Your task to perform on an android device: toggle data saver in the chrome app Image 0: 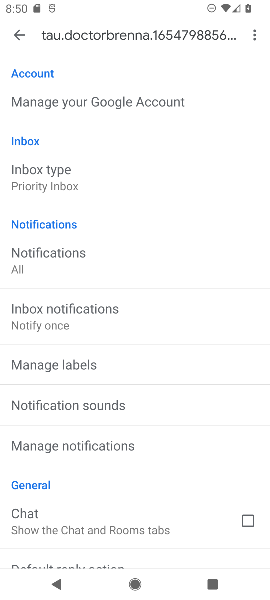
Step 0: press home button
Your task to perform on an android device: toggle data saver in the chrome app Image 1: 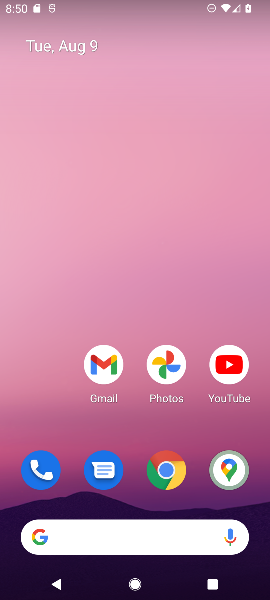
Step 1: click (164, 470)
Your task to perform on an android device: toggle data saver in the chrome app Image 2: 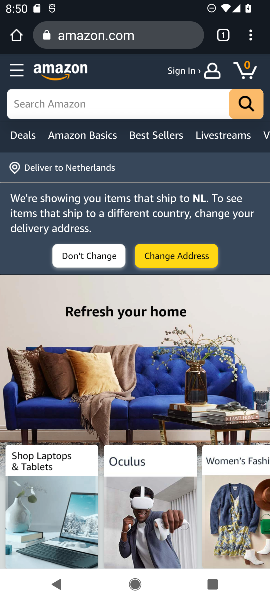
Step 2: click (252, 36)
Your task to perform on an android device: toggle data saver in the chrome app Image 3: 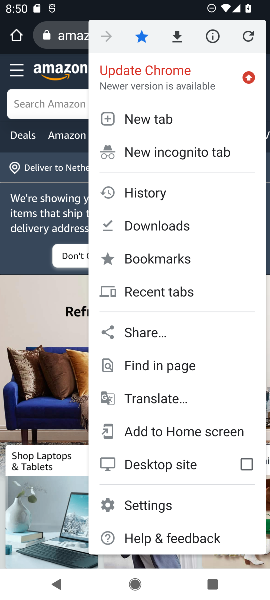
Step 3: click (151, 507)
Your task to perform on an android device: toggle data saver in the chrome app Image 4: 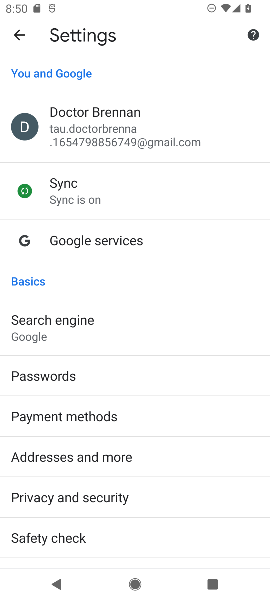
Step 4: drag from (84, 442) to (133, 348)
Your task to perform on an android device: toggle data saver in the chrome app Image 5: 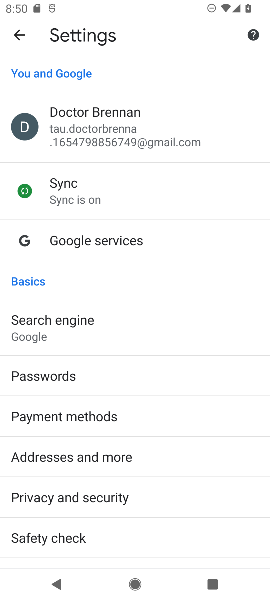
Step 5: drag from (105, 493) to (182, 99)
Your task to perform on an android device: toggle data saver in the chrome app Image 6: 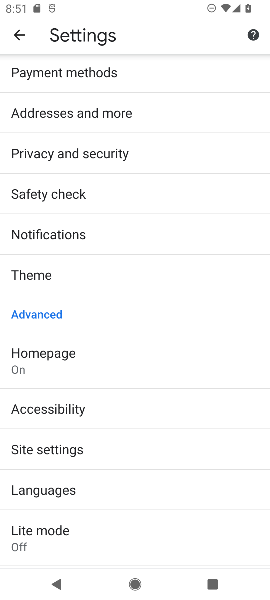
Step 6: click (58, 528)
Your task to perform on an android device: toggle data saver in the chrome app Image 7: 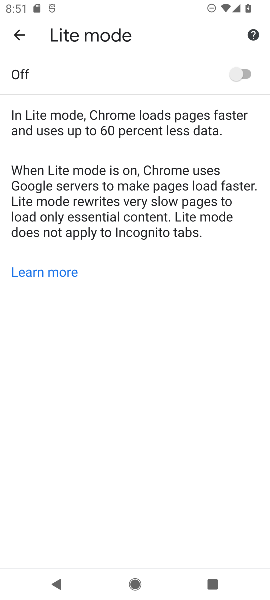
Step 7: click (237, 75)
Your task to perform on an android device: toggle data saver in the chrome app Image 8: 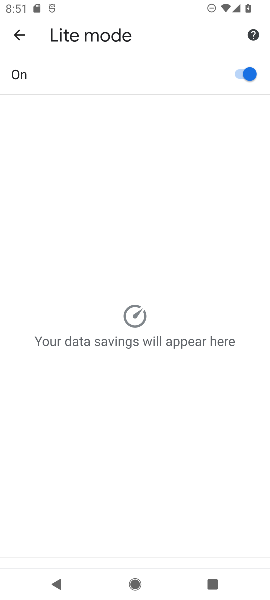
Step 8: task complete